Your task to perform on an android device: Show the shopping cart on ebay. Image 0: 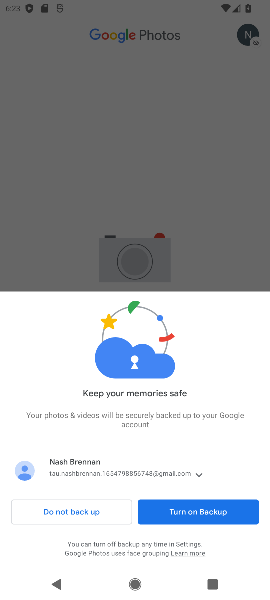
Step 0: press home button
Your task to perform on an android device: Show the shopping cart on ebay. Image 1: 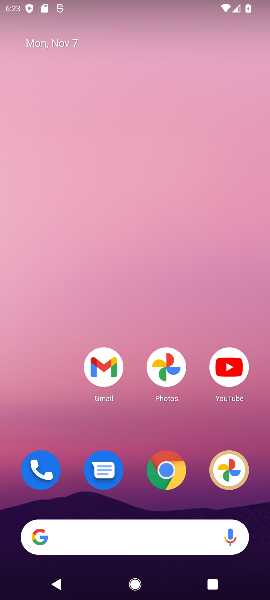
Step 1: click (183, 460)
Your task to perform on an android device: Show the shopping cart on ebay. Image 2: 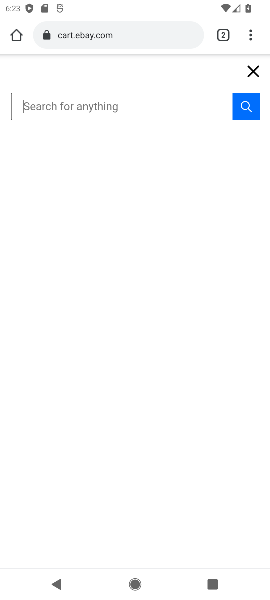
Step 2: click (172, 462)
Your task to perform on an android device: Show the shopping cart on ebay. Image 3: 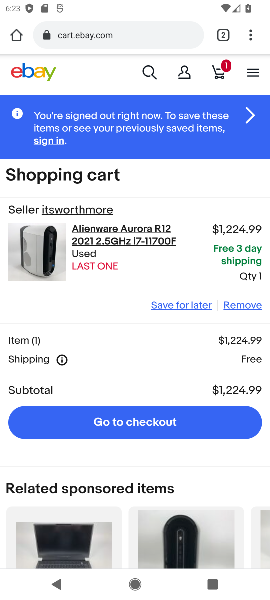
Step 3: click (87, 37)
Your task to perform on an android device: Show the shopping cart on ebay. Image 4: 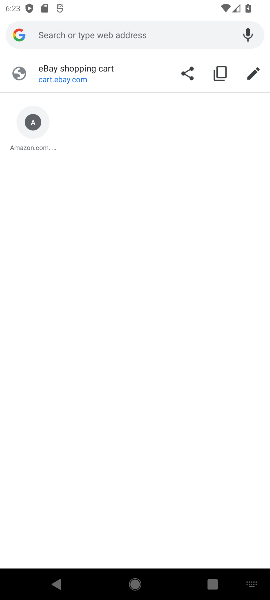
Step 4: click (104, 41)
Your task to perform on an android device: Show the shopping cart on ebay. Image 5: 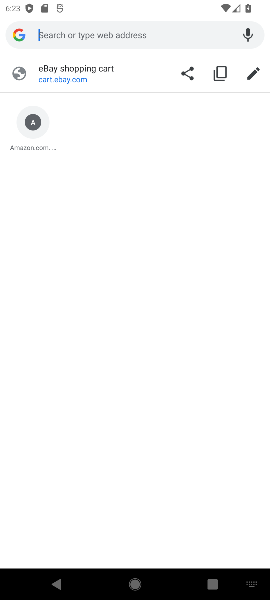
Step 5: type "bestbuy"
Your task to perform on an android device: Show the shopping cart on ebay. Image 6: 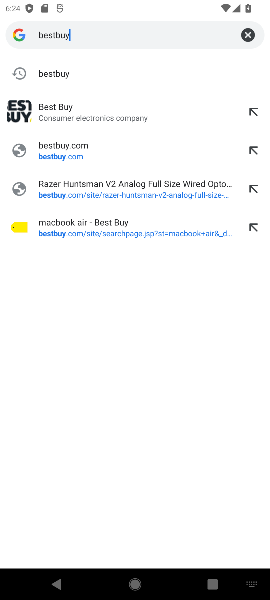
Step 6: click (32, 120)
Your task to perform on an android device: Show the shopping cart on ebay. Image 7: 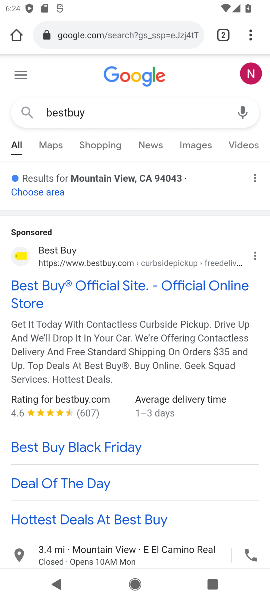
Step 7: click (70, 278)
Your task to perform on an android device: Show the shopping cart on ebay. Image 8: 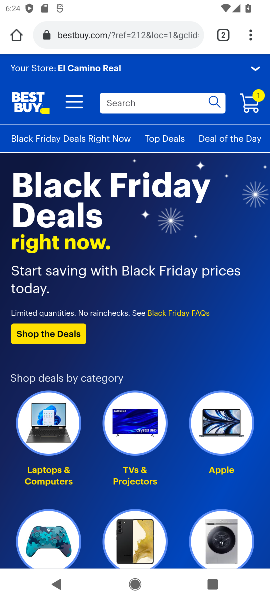
Step 8: click (253, 94)
Your task to perform on an android device: Show the shopping cart on ebay. Image 9: 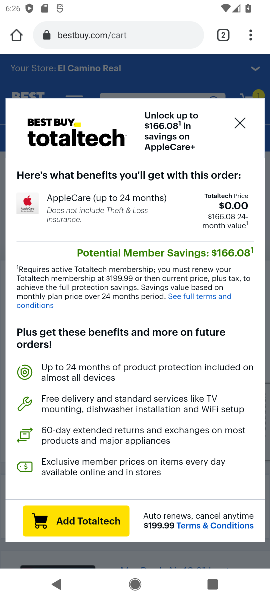
Step 9: click (241, 122)
Your task to perform on an android device: Show the shopping cart on ebay. Image 10: 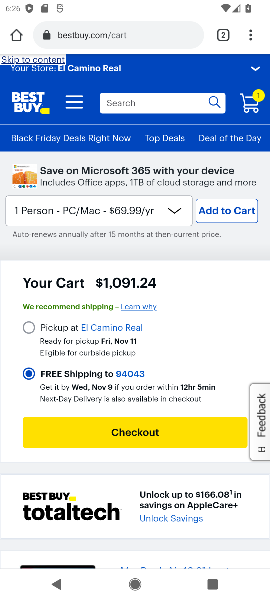
Step 10: click (242, 120)
Your task to perform on an android device: Show the shopping cart on ebay. Image 11: 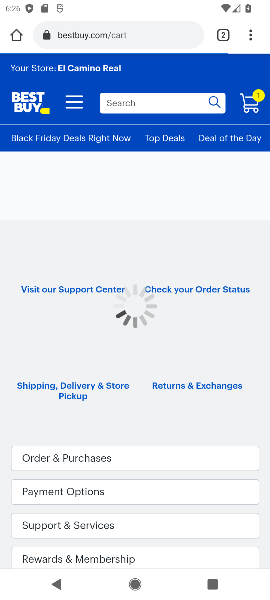
Step 11: click (247, 108)
Your task to perform on an android device: Show the shopping cart on ebay. Image 12: 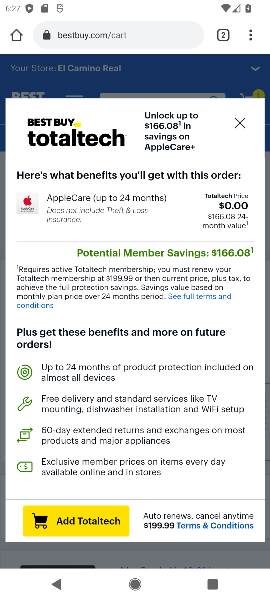
Step 12: click (239, 122)
Your task to perform on an android device: Show the shopping cart on ebay. Image 13: 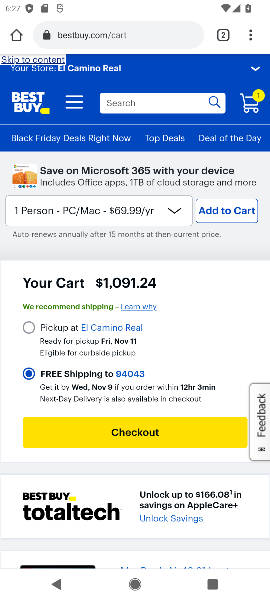
Step 13: task complete